Your task to perform on an android device: Open ESPN.com Image 0: 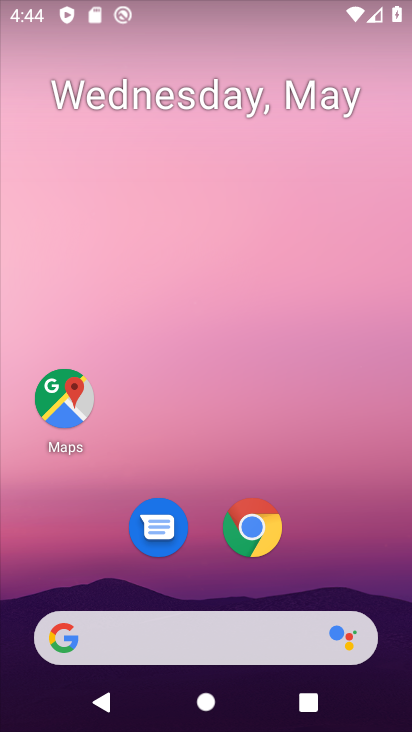
Step 0: click (253, 534)
Your task to perform on an android device: Open ESPN.com Image 1: 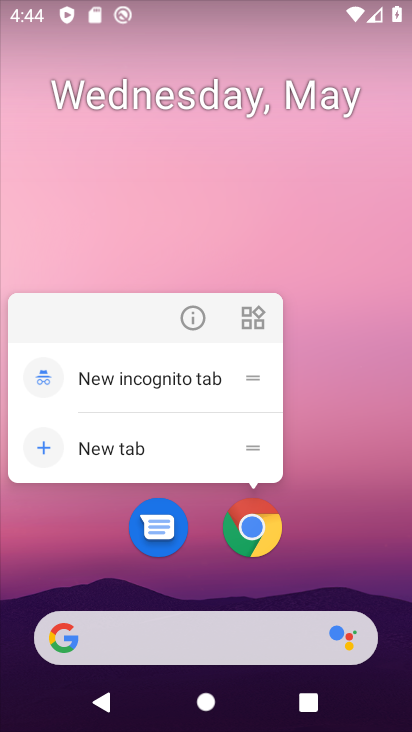
Step 1: click (269, 547)
Your task to perform on an android device: Open ESPN.com Image 2: 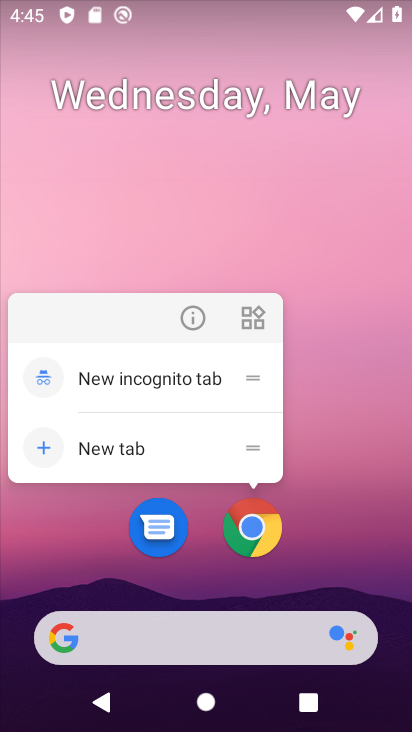
Step 2: click (247, 531)
Your task to perform on an android device: Open ESPN.com Image 3: 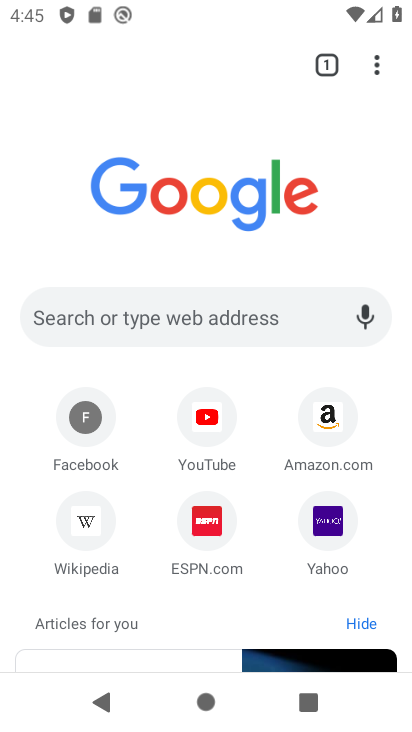
Step 3: click (199, 540)
Your task to perform on an android device: Open ESPN.com Image 4: 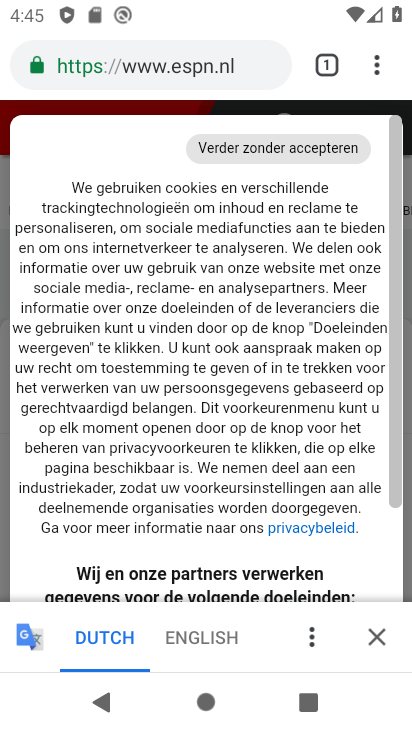
Step 4: task complete